Your task to perform on an android device: turn off notifications in google photos Image 0: 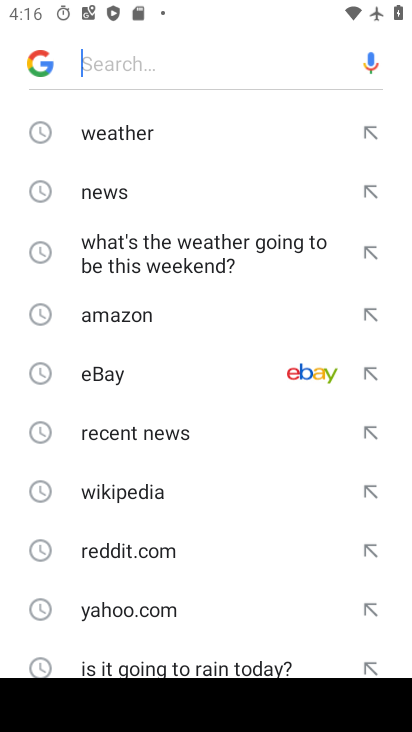
Step 0: press back button
Your task to perform on an android device: turn off notifications in google photos Image 1: 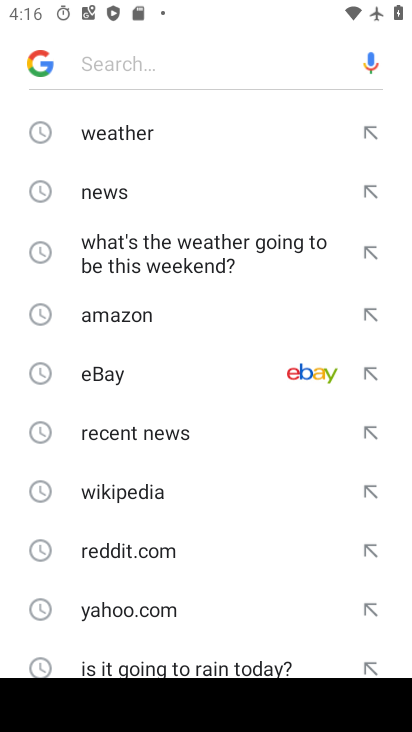
Step 1: press back button
Your task to perform on an android device: turn off notifications in google photos Image 2: 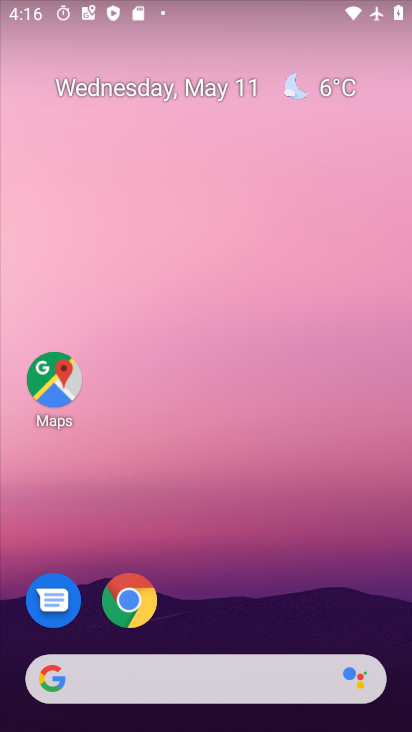
Step 2: drag from (303, 660) to (74, 28)
Your task to perform on an android device: turn off notifications in google photos Image 3: 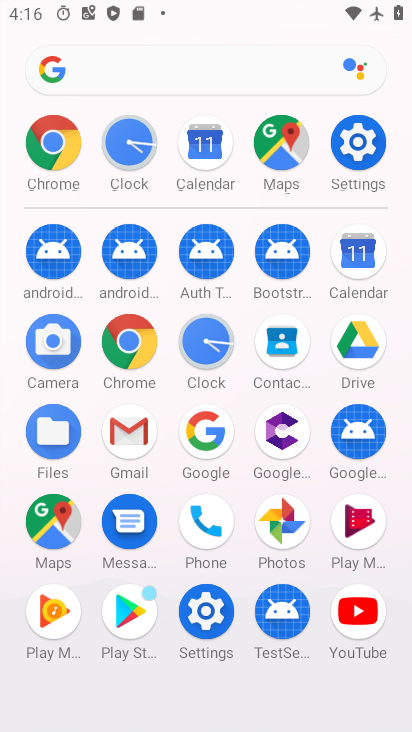
Step 3: click (277, 522)
Your task to perform on an android device: turn off notifications in google photos Image 4: 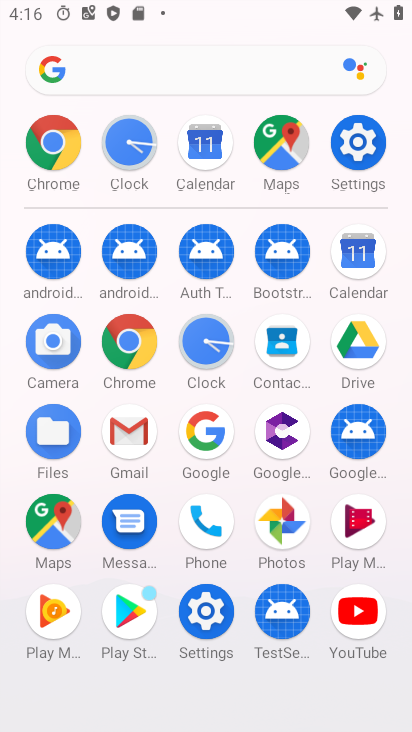
Step 4: click (280, 525)
Your task to perform on an android device: turn off notifications in google photos Image 5: 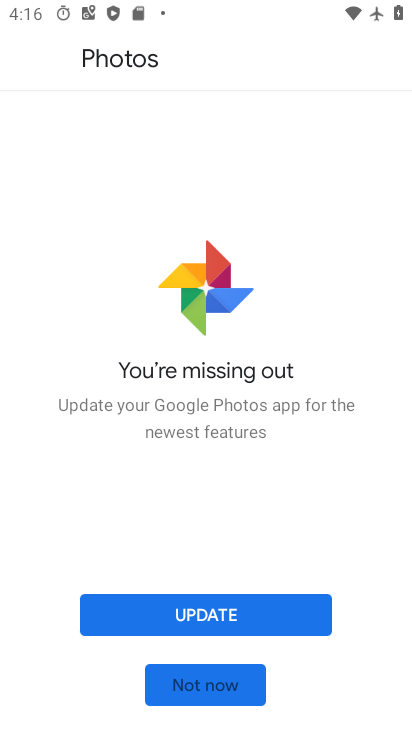
Step 5: click (213, 695)
Your task to perform on an android device: turn off notifications in google photos Image 6: 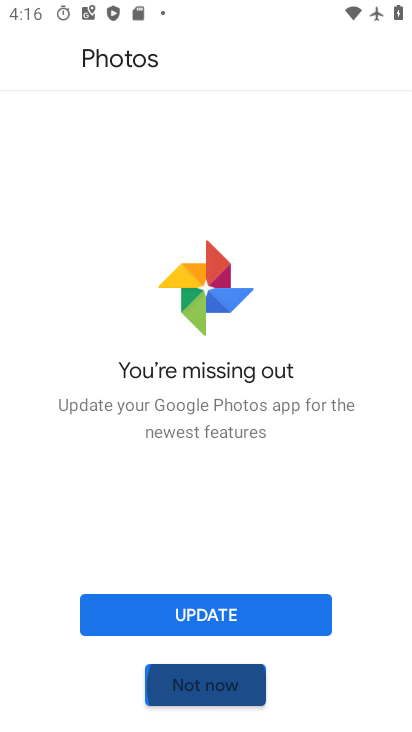
Step 6: click (213, 695)
Your task to perform on an android device: turn off notifications in google photos Image 7: 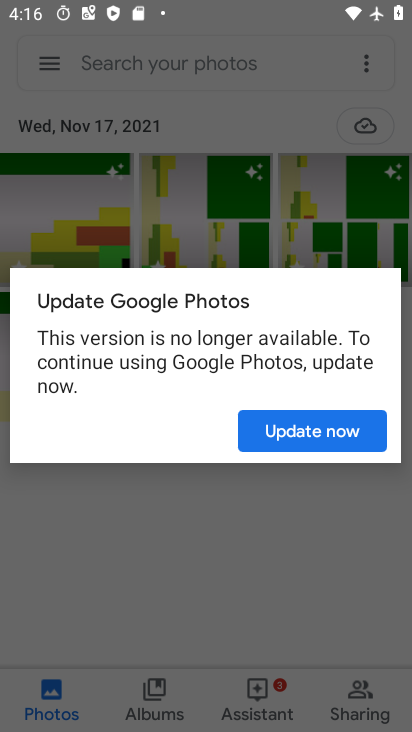
Step 7: click (294, 457)
Your task to perform on an android device: turn off notifications in google photos Image 8: 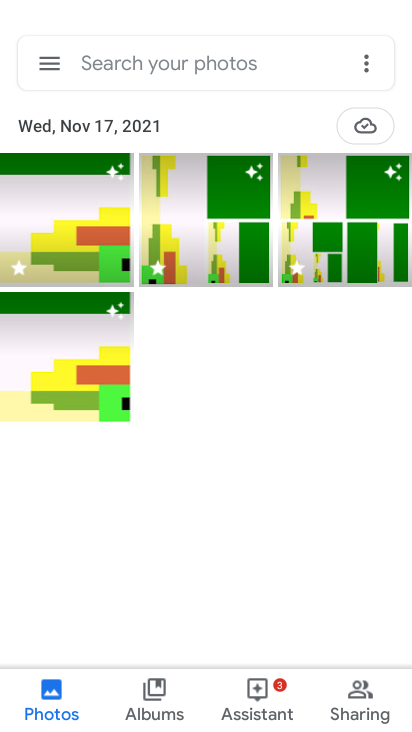
Step 8: click (302, 423)
Your task to perform on an android device: turn off notifications in google photos Image 9: 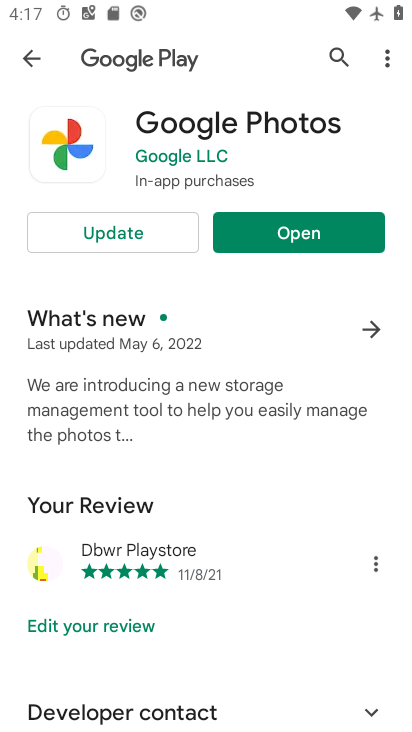
Step 9: click (308, 233)
Your task to perform on an android device: turn off notifications in google photos Image 10: 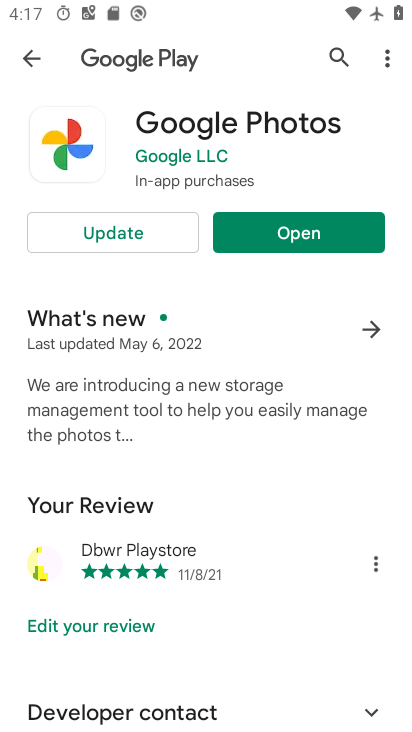
Step 10: click (308, 233)
Your task to perform on an android device: turn off notifications in google photos Image 11: 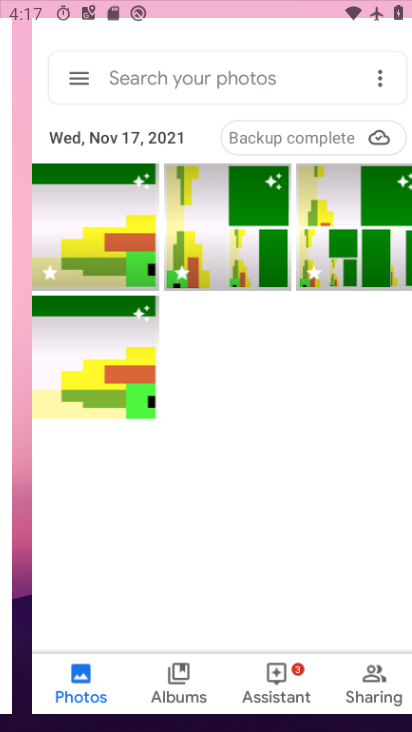
Step 11: click (308, 233)
Your task to perform on an android device: turn off notifications in google photos Image 12: 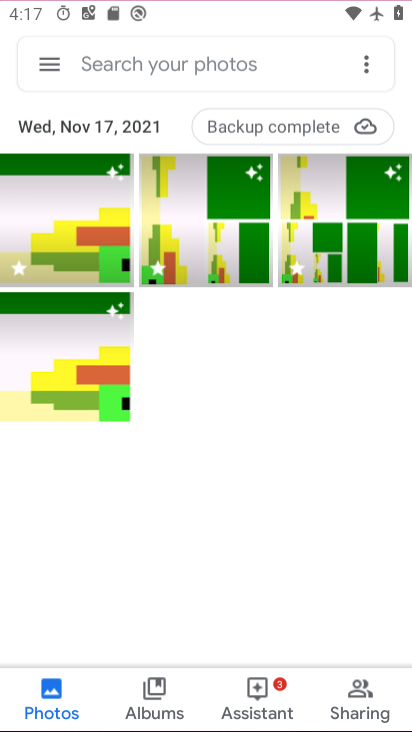
Step 12: click (308, 233)
Your task to perform on an android device: turn off notifications in google photos Image 13: 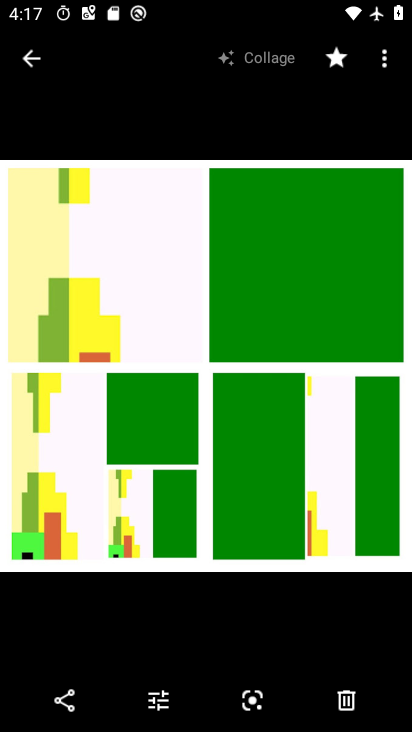
Step 13: task complete